Your task to perform on an android device: toggle show notifications on the lock screen Image 0: 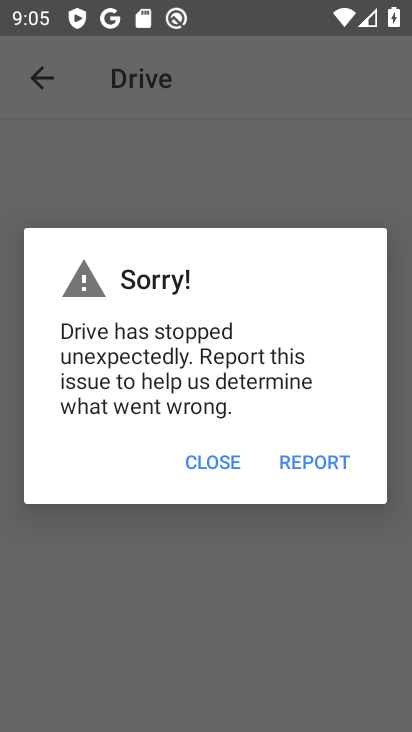
Step 0: press home button
Your task to perform on an android device: toggle show notifications on the lock screen Image 1: 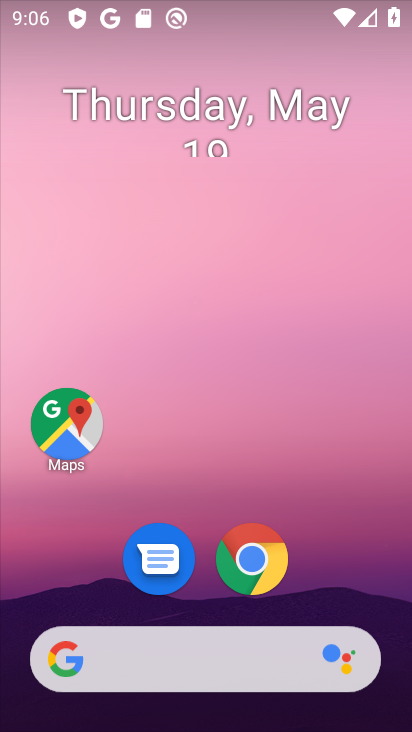
Step 1: drag from (355, 548) to (345, 183)
Your task to perform on an android device: toggle show notifications on the lock screen Image 2: 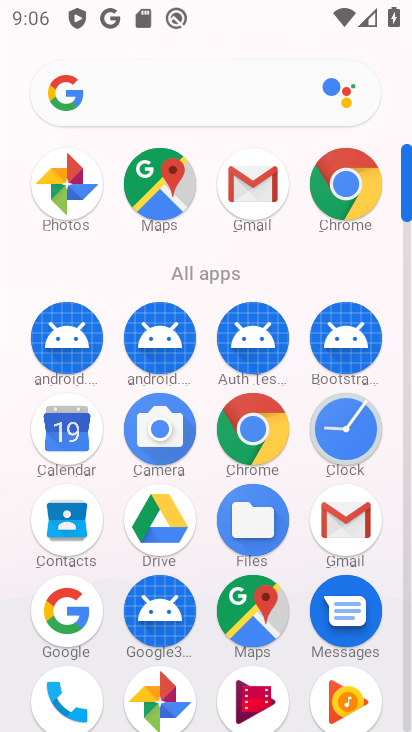
Step 2: drag from (263, 669) to (328, 262)
Your task to perform on an android device: toggle show notifications on the lock screen Image 3: 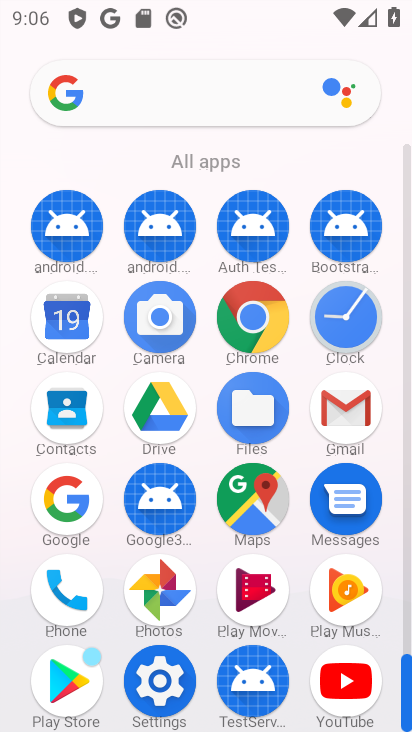
Step 3: click (159, 653)
Your task to perform on an android device: toggle show notifications on the lock screen Image 4: 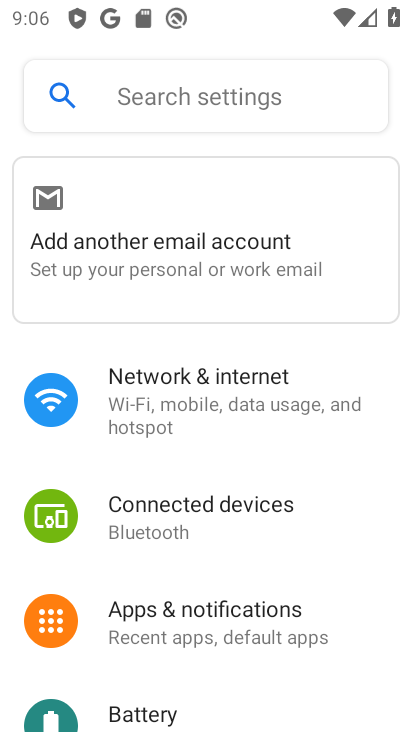
Step 4: drag from (158, 652) to (239, 415)
Your task to perform on an android device: toggle show notifications on the lock screen Image 5: 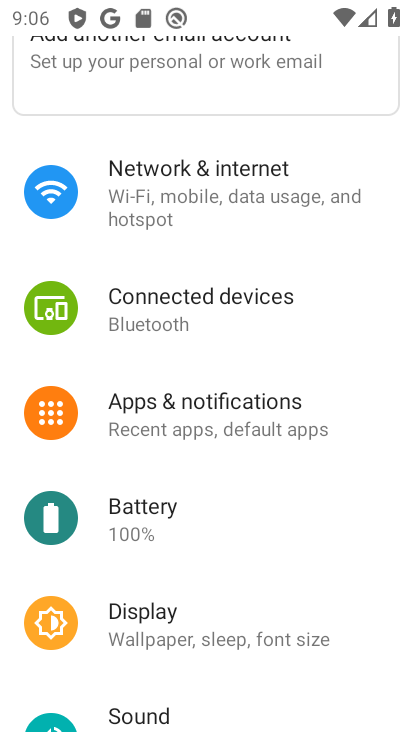
Step 5: click (239, 415)
Your task to perform on an android device: toggle show notifications on the lock screen Image 6: 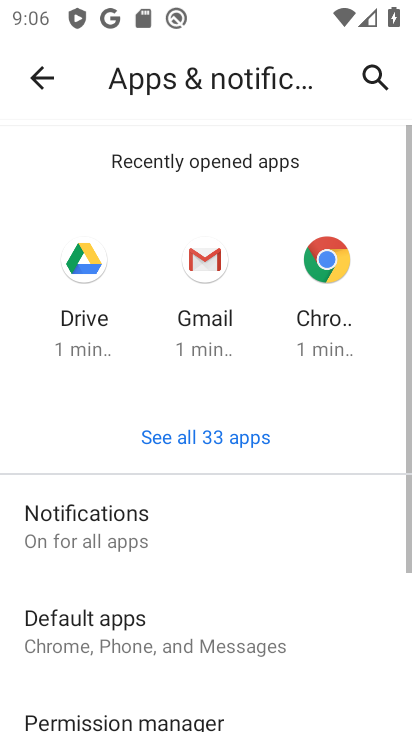
Step 6: drag from (256, 628) to (274, 472)
Your task to perform on an android device: toggle show notifications on the lock screen Image 7: 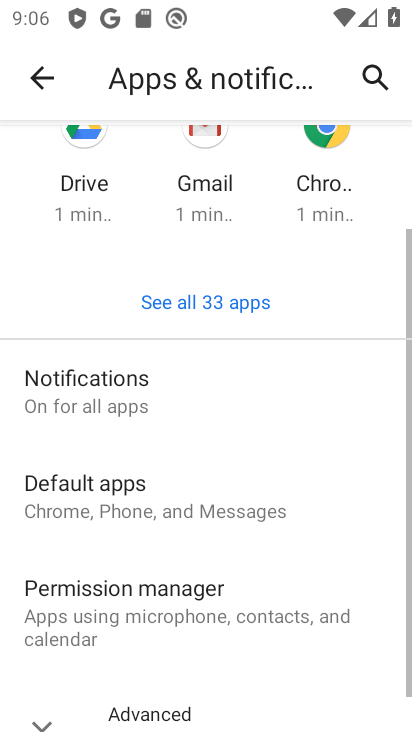
Step 7: click (133, 409)
Your task to perform on an android device: toggle show notifications on the lock screen Image 8: 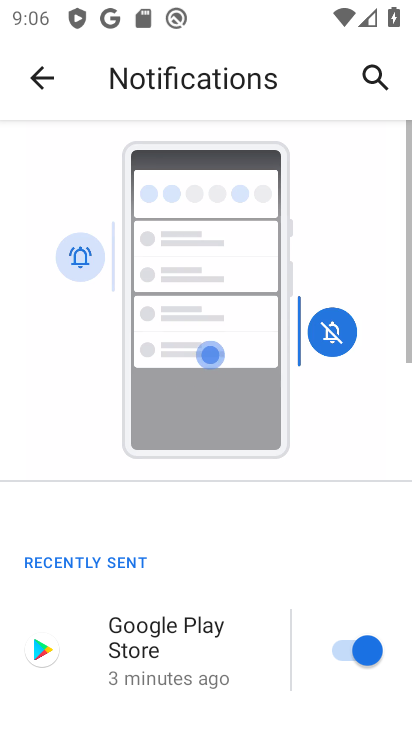
Step 8: drag from (292, 598) to (325, 97)
Your task to perform on an android device: toggle show notifications on the lock screen Image 9: 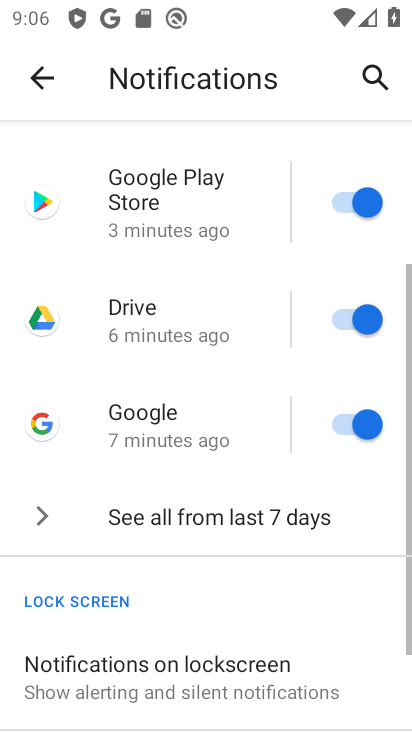
Step 9: click (325, 94)
Your task to perform on an android device: toggle show notifications on the lock screen Image 10: 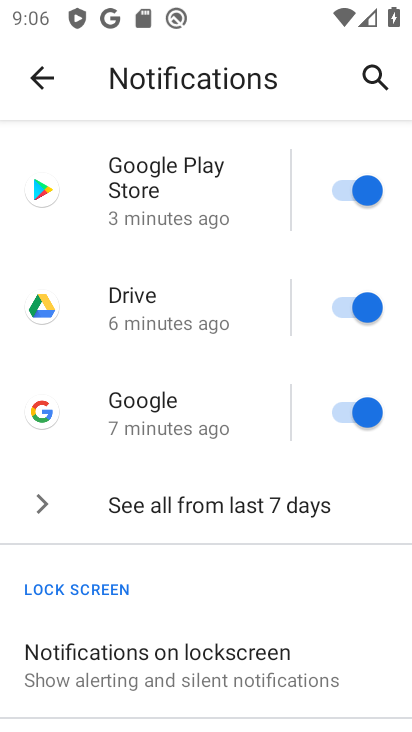
Step 10: click (189, 653)
Your task to perform on an android device: toggle show notifications on the lock screen Image 11: 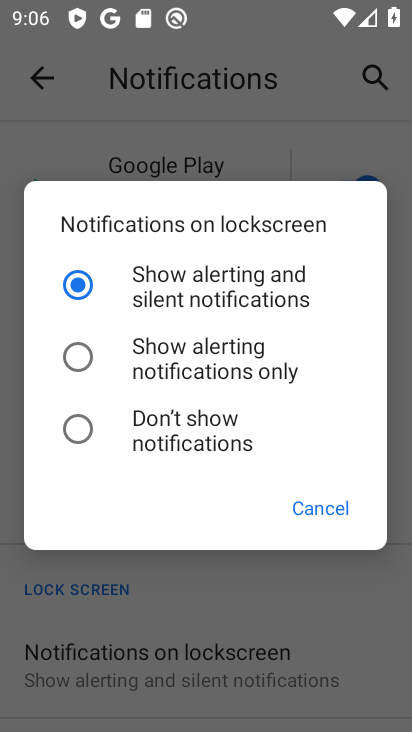
Step 11: click (231, 369)
Your task to perform on an android device: toggle show notifications on the lock screen Image 12: 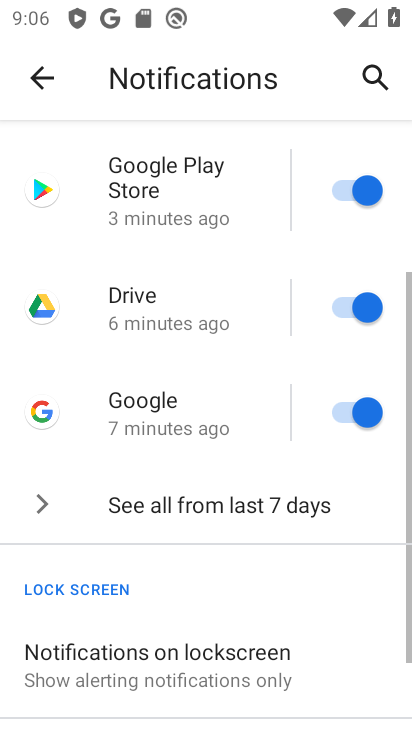
Step 12: task complete